Your task to perform on an android device: Open Google Image 0: 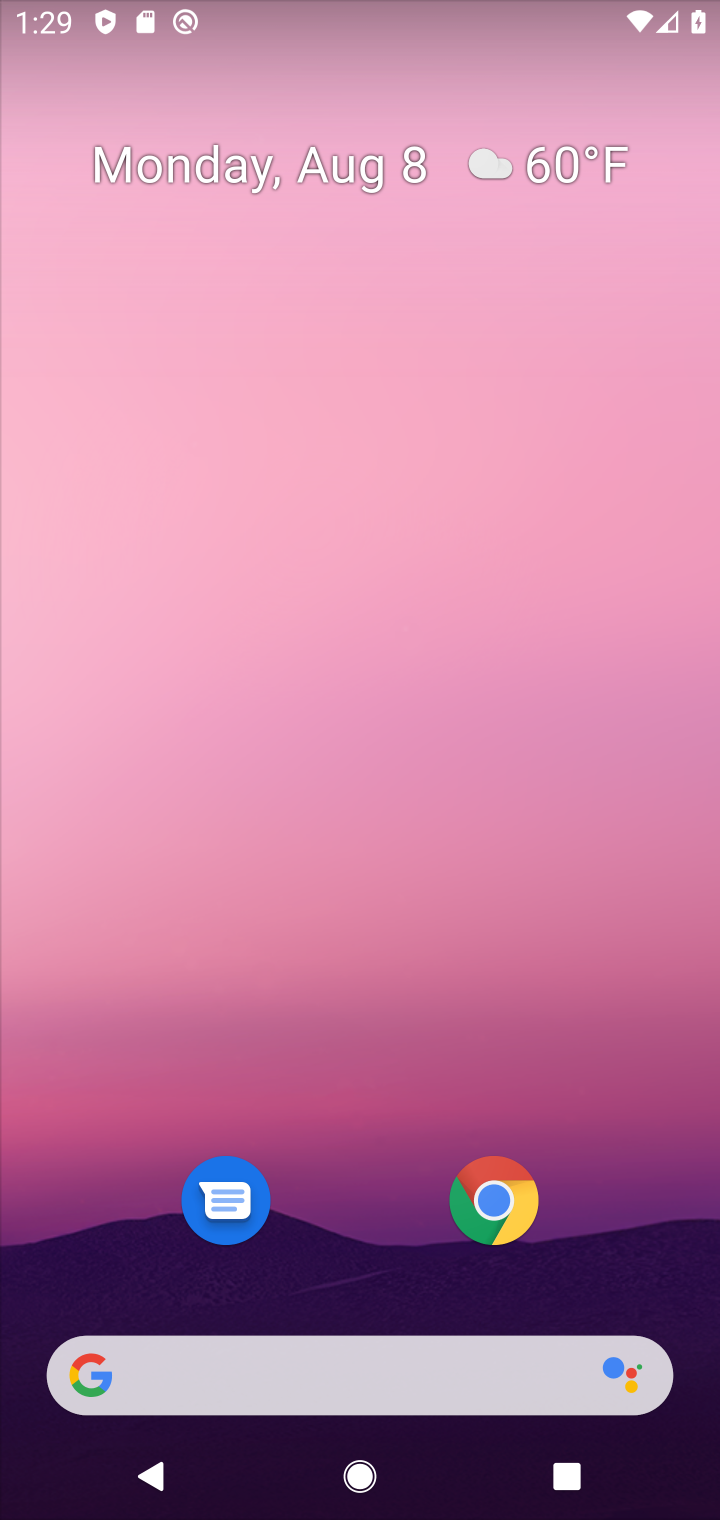
Step 0: press home button
Your task to perform on an android device: Open Google Image 1: 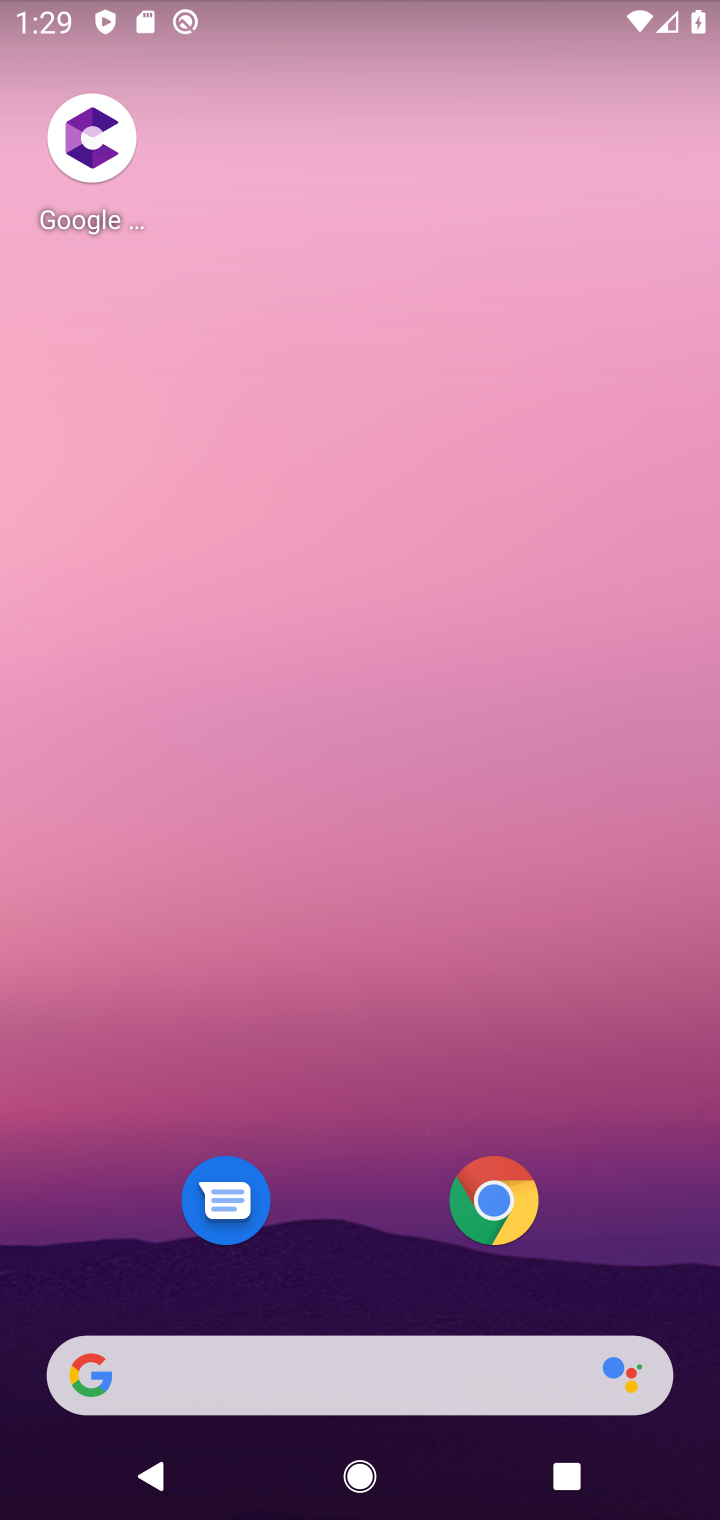
Step 1: drag from (385, 1273) to (447, 203)
Your task to perform on an android device: Open Google Image 2: 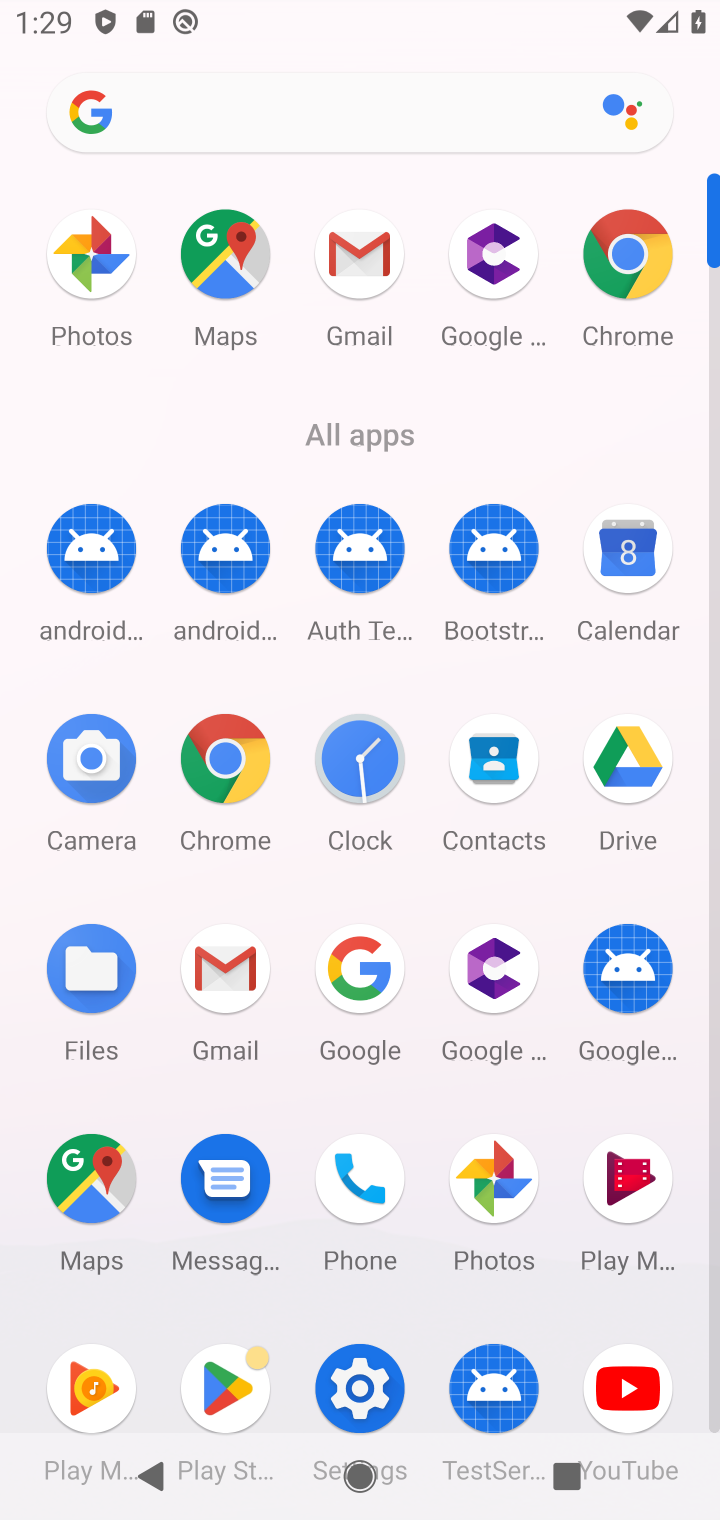
Step 2: click (359, 958)
Your task to perform on an android device: Open Google Image 3: 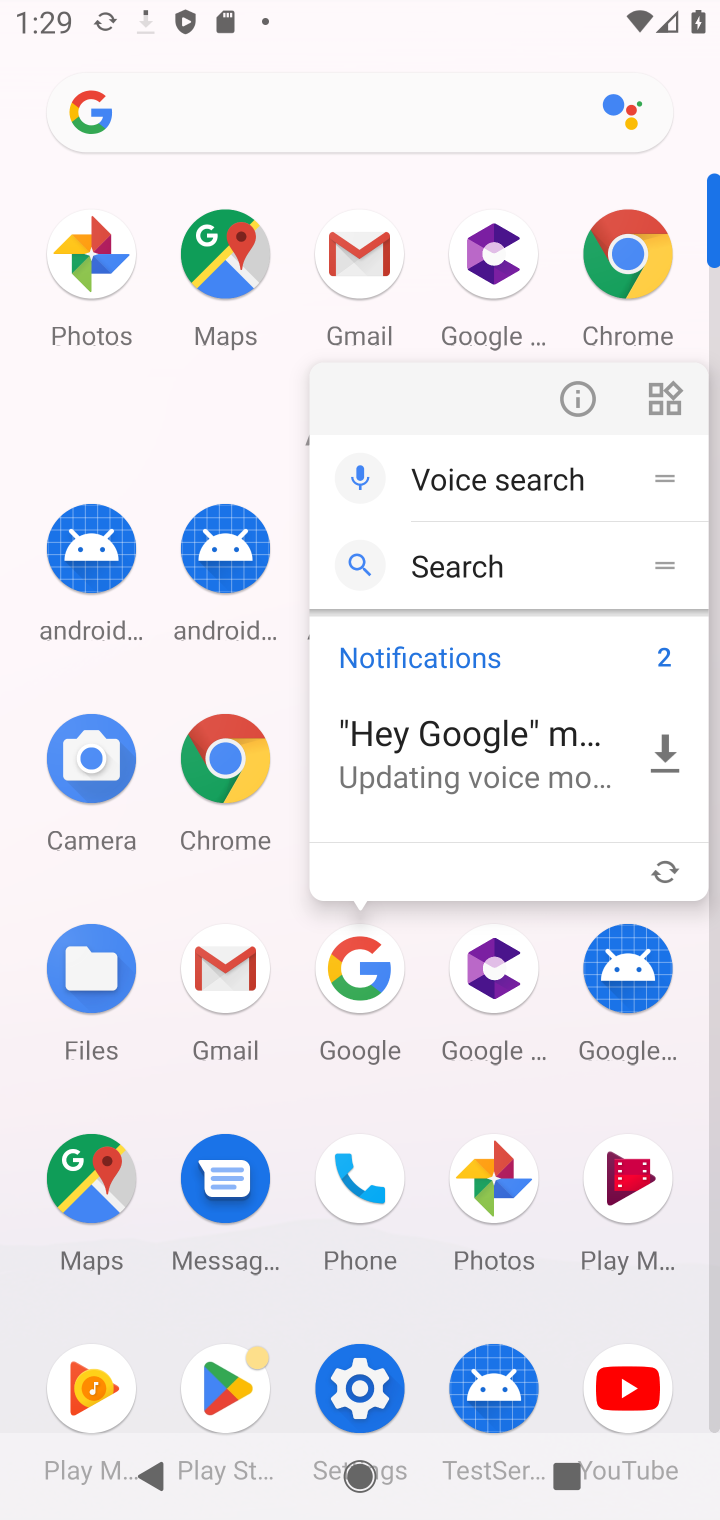
Step 3: click (364, 976)
Your task to perform on an android device: Open Google Image 4: 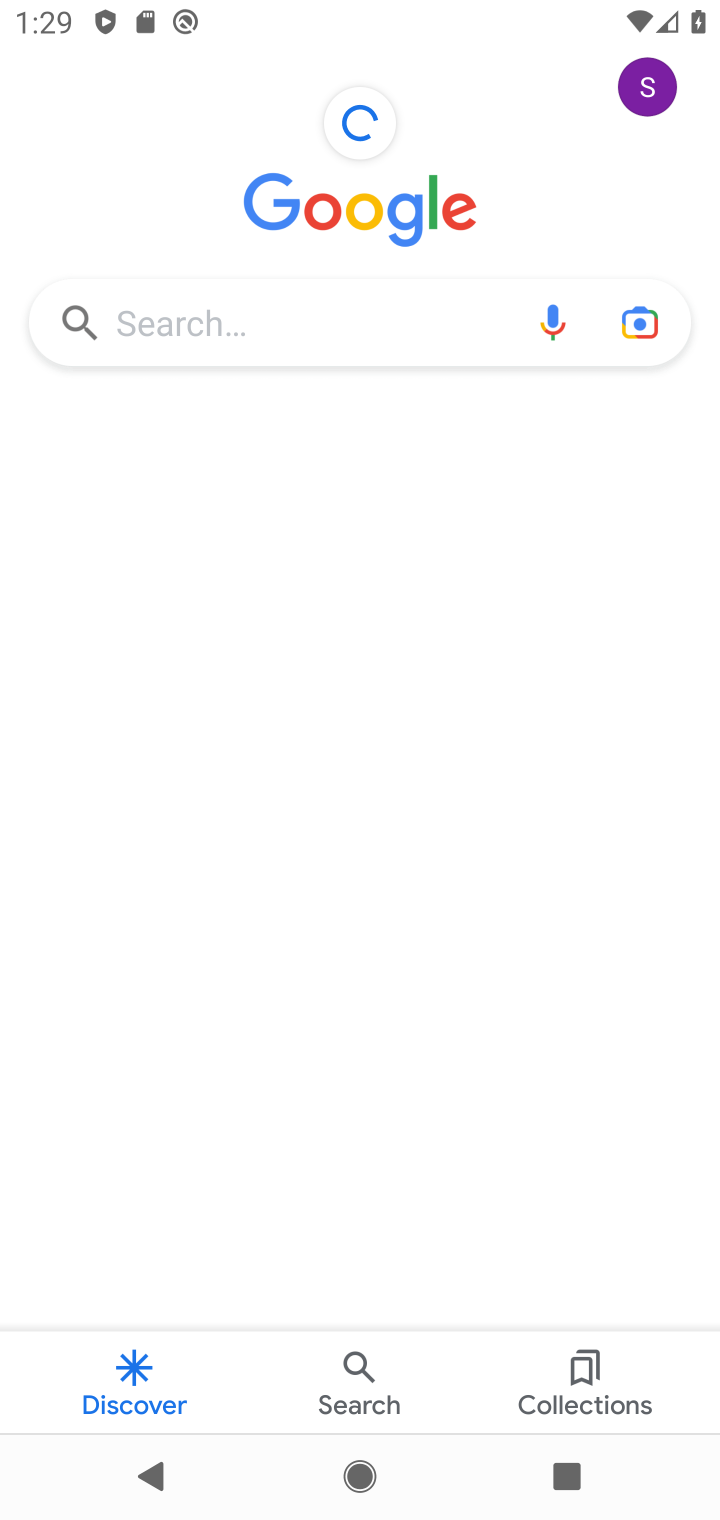
Step 4: task complete